Your task to perform on an android device: Clear all items from cart on ebay.com. Search for "bose soundlink mini" on ebay.com, select the first entry, and add it to the cart. Image 0: 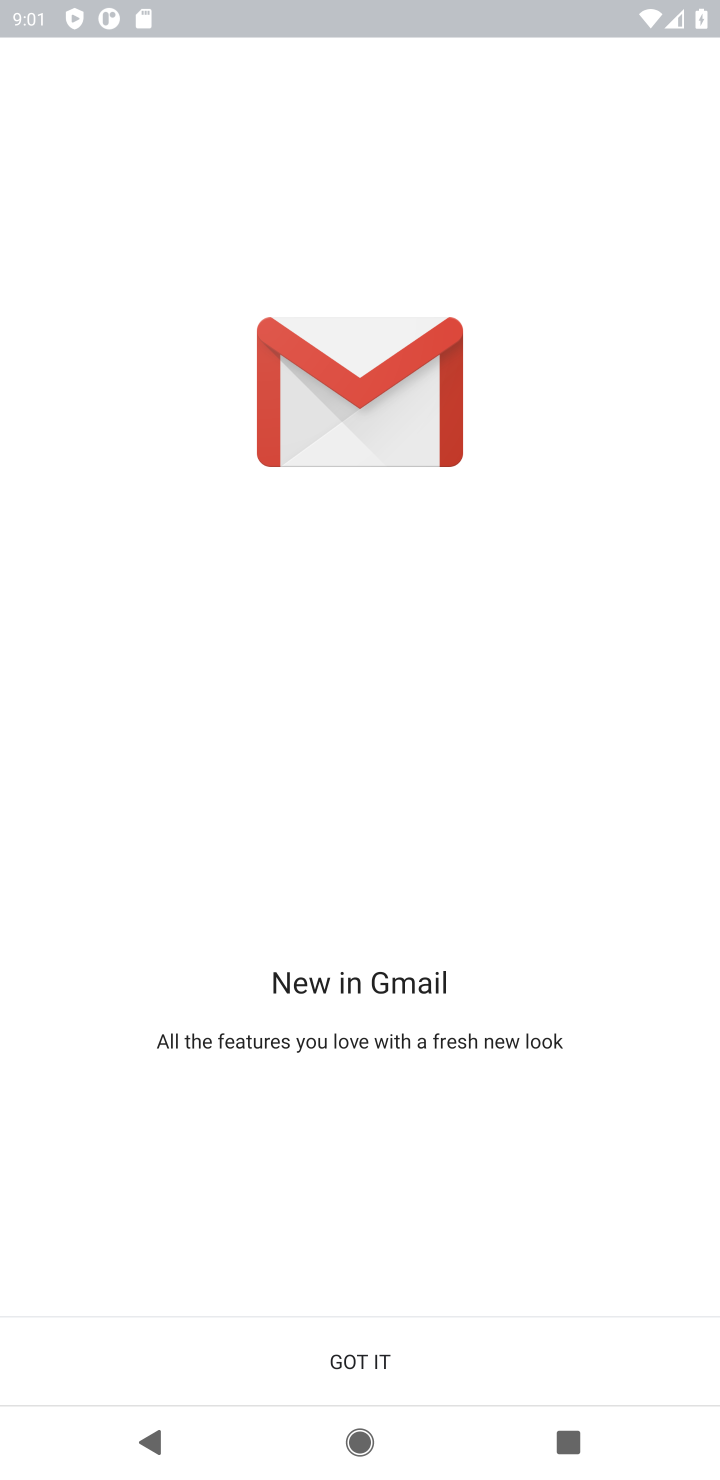
Step 0: press home button
Your task to perform on an android device: Clear all items from cart on ebay.com. Search for "bose soundlink mini" on ebay.com, select the first entry, and add it to the cart. Image 1: 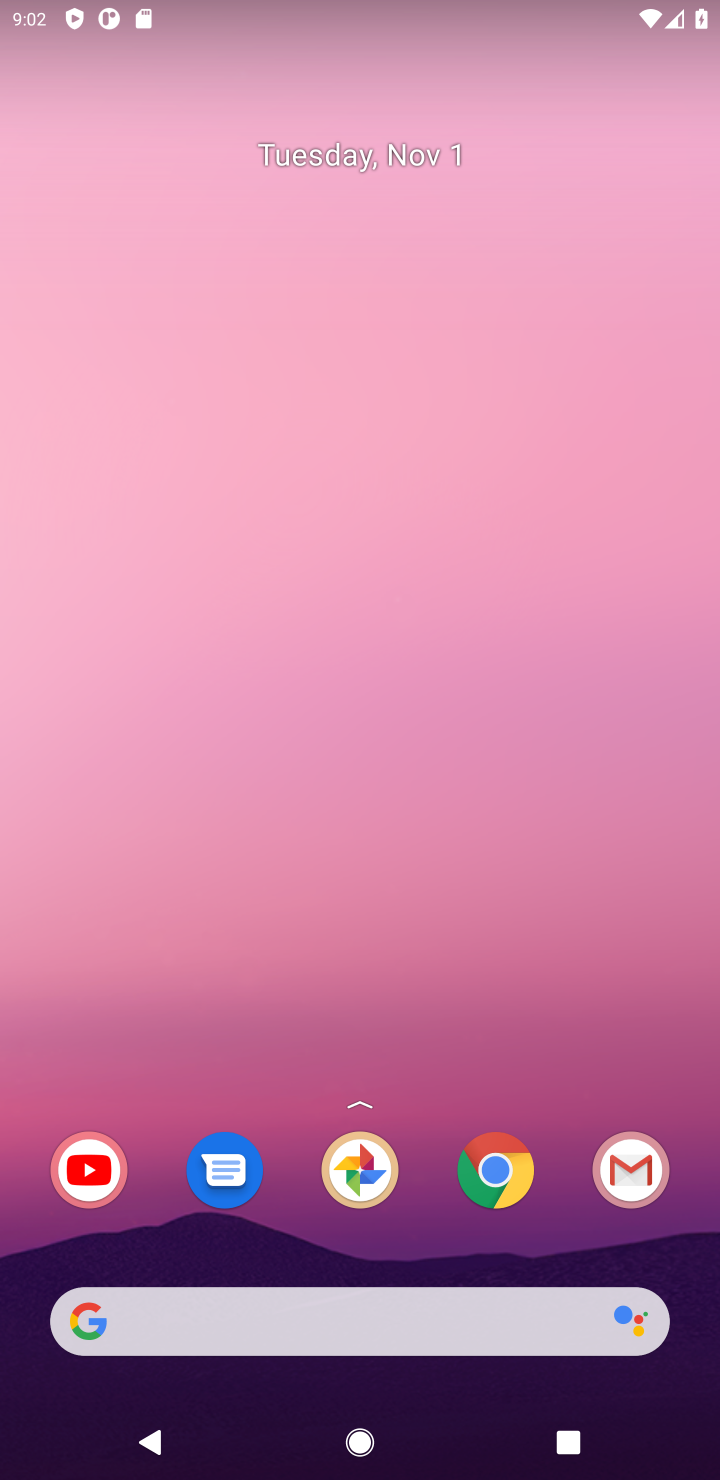
Step 1: click (499, 1188)
Your task to perform on an android device: Clear all items from cart on ebay.com. Search for "bose soundlink mini" on ebay.com, select the first entry, and add it to the cart. Image 2: 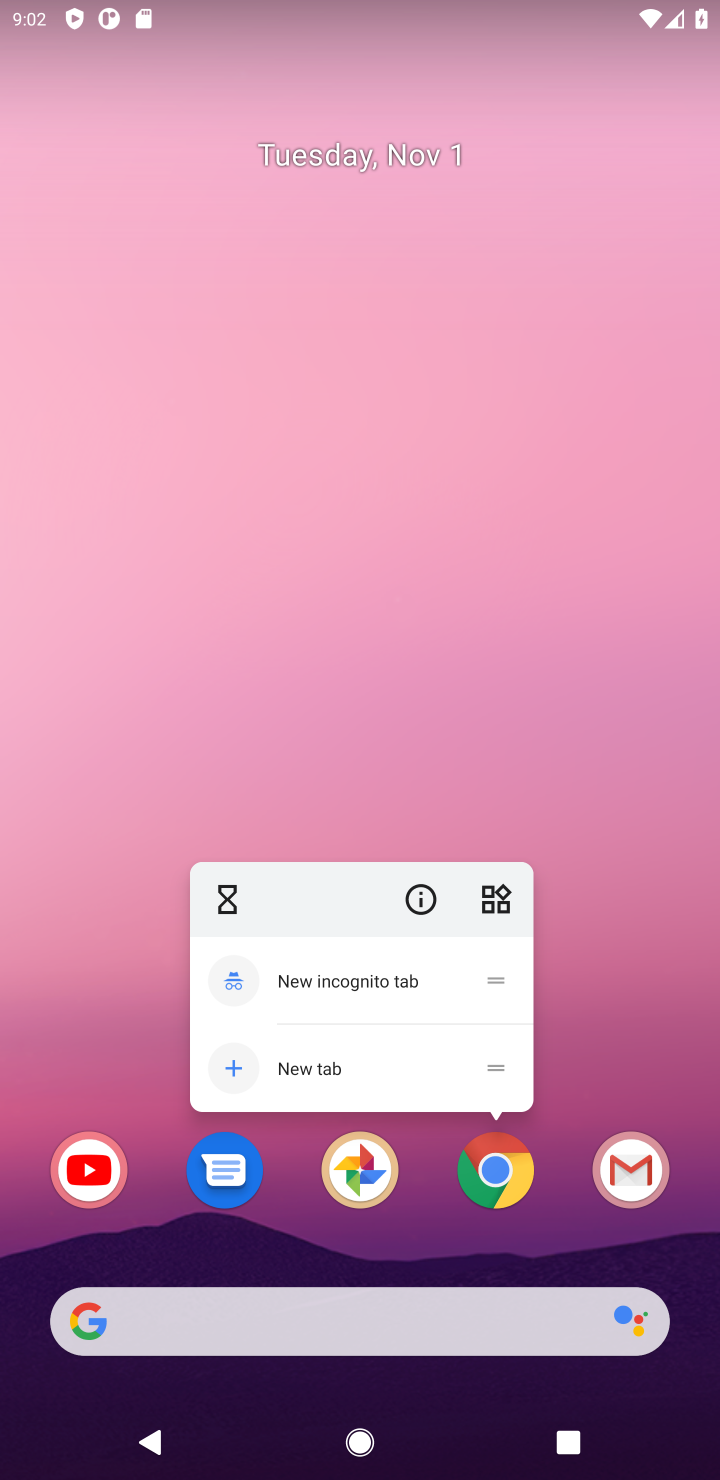
Step 2: click (487, 1174)
Your task to perform on an android device: Clear all items from cart on ebay.com. Search for "bose soundlink mini" on ebay.com, select the first entry, and add it to the cart. Image 3: 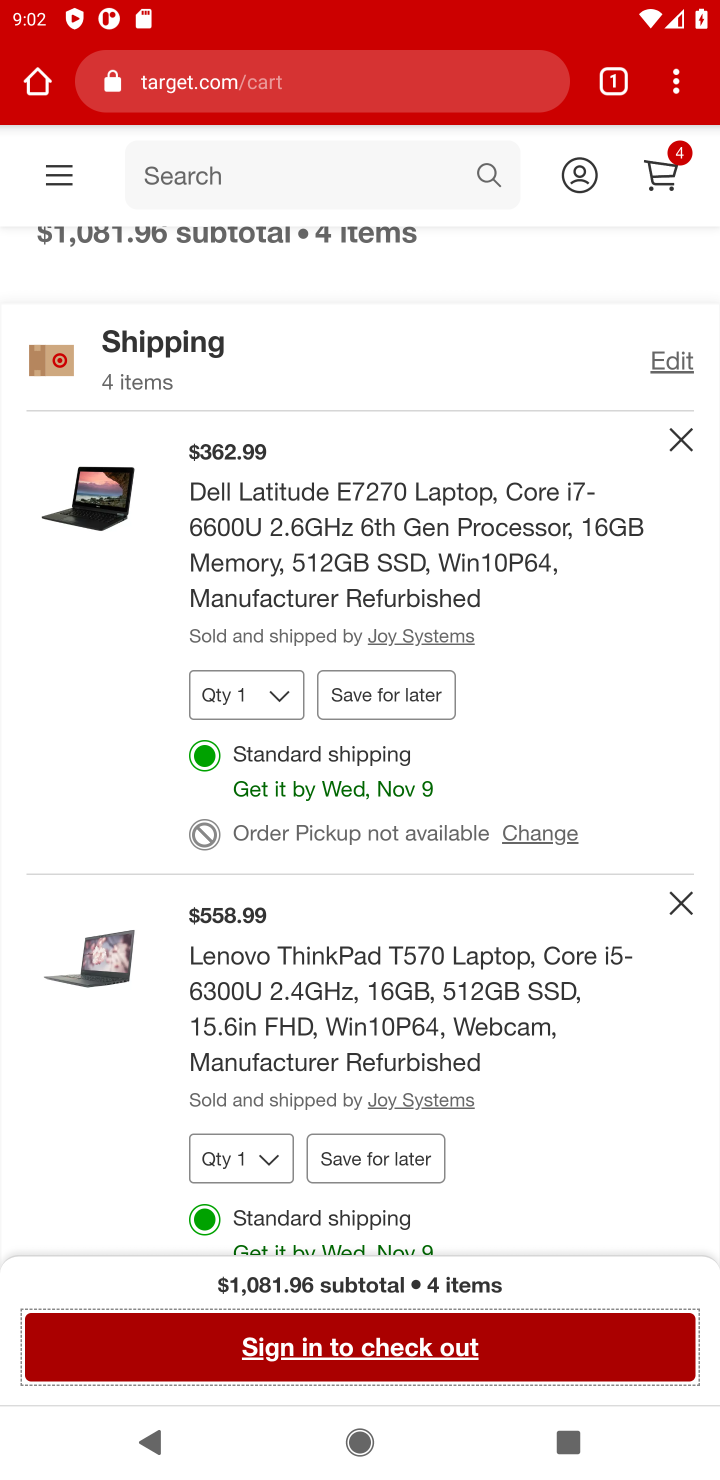
Step 3: click (286, 82)
Your task to perform on an android device: Clear all items from cart on ebay.com. Search for "bose soundlink mini" on ebay.com, select the first entry, and add it to the cart. Image 4: 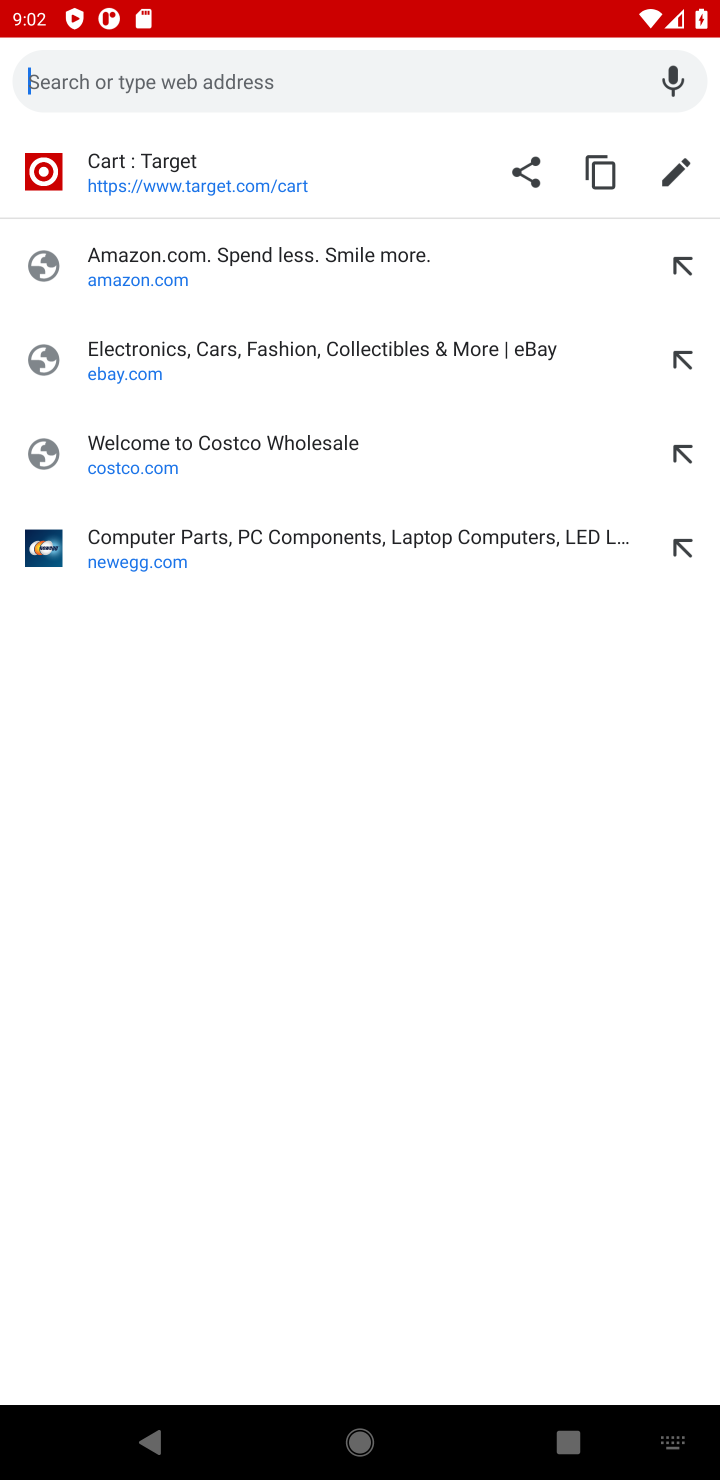
Step 4: type "ebay.com"
Your task to perform on an android device: Clear all items from cart on ebay.com. Search for "bose soundlink mini" on ebay.com, select the first entry, and add it to the cart. Image 5: 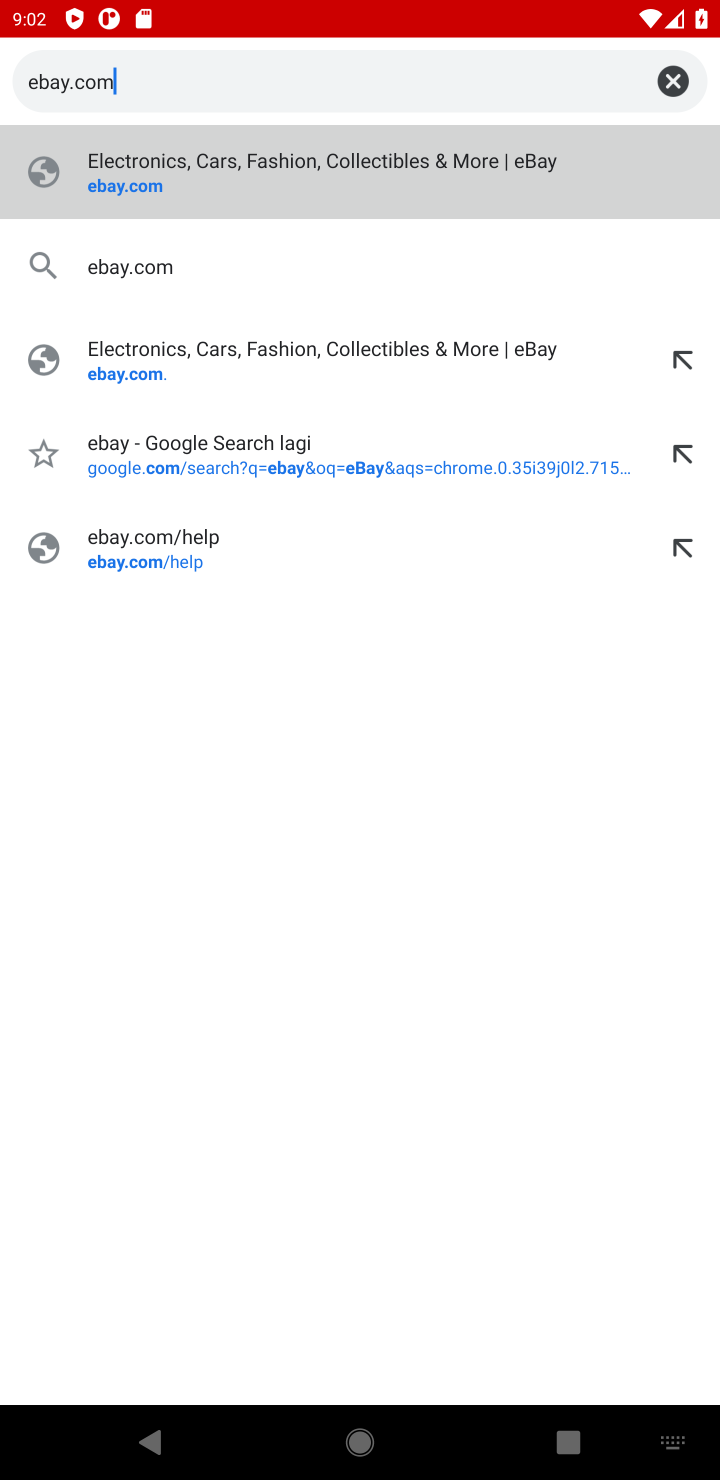
Step 5: press enter
Your task to perform on an android device: Clear all items from cart on ebay.com. Search for "bose soundlink mini" on ebay.com, select the first entry, and add it to the cart. Image 6: 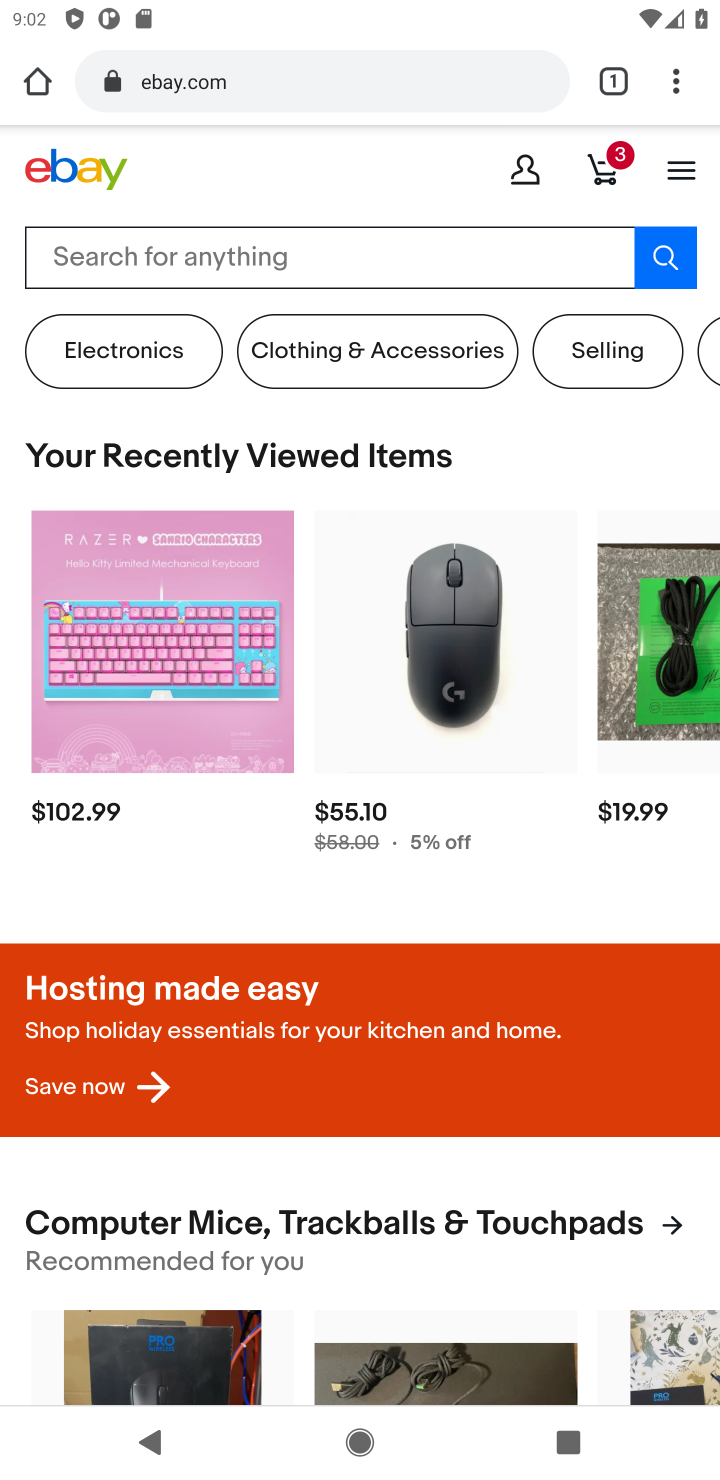
Step 6: click (615, 167)
Your task to perform on an android device: Clear all items from cart on ebay.com. Search for "bose soundlink mini" on ebay.com, select the first entry, and add it to the cart. Image 7: 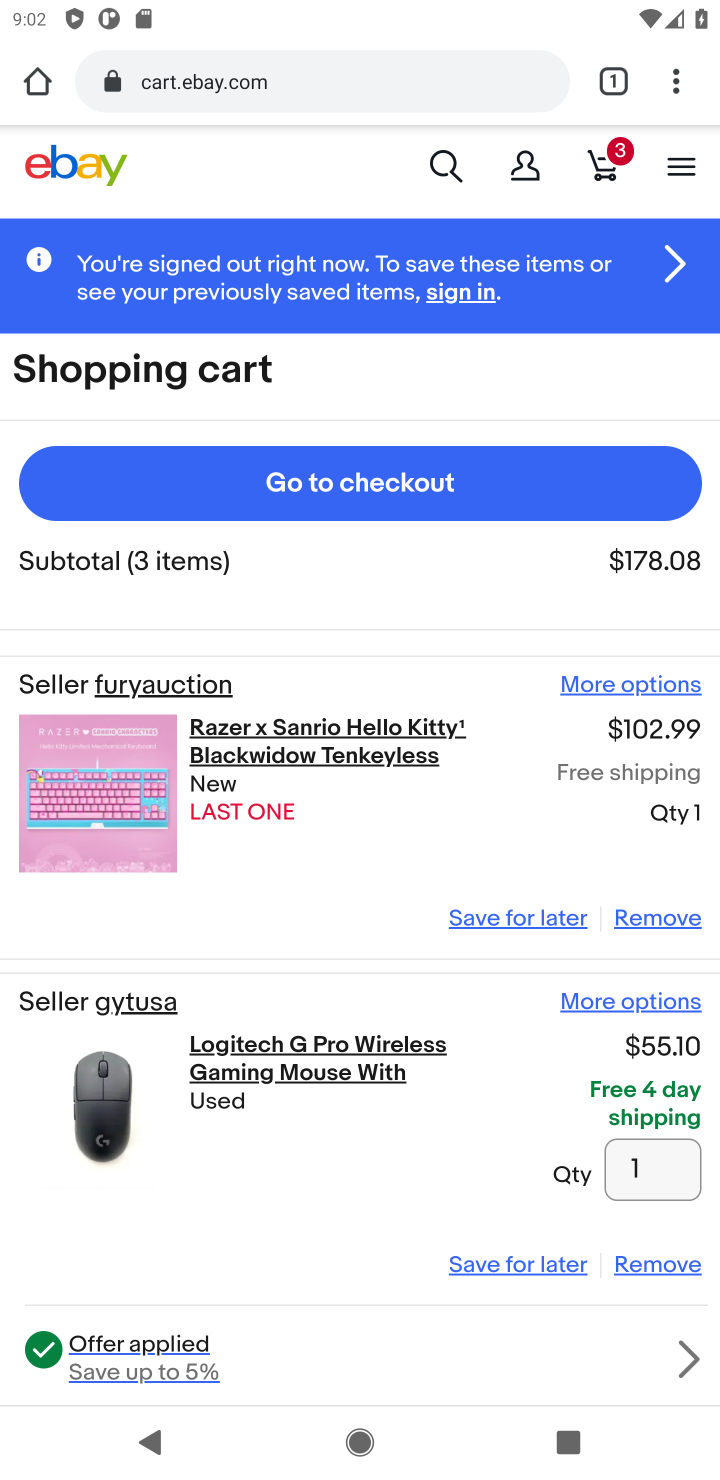
Step 7: click (658, 927)
Your task to perform on an android device: Clear all items from cart on ebay.com. Search for "bose soundlink mini" on ebay.com, select the first entry, and add it to the cart. Image 8: 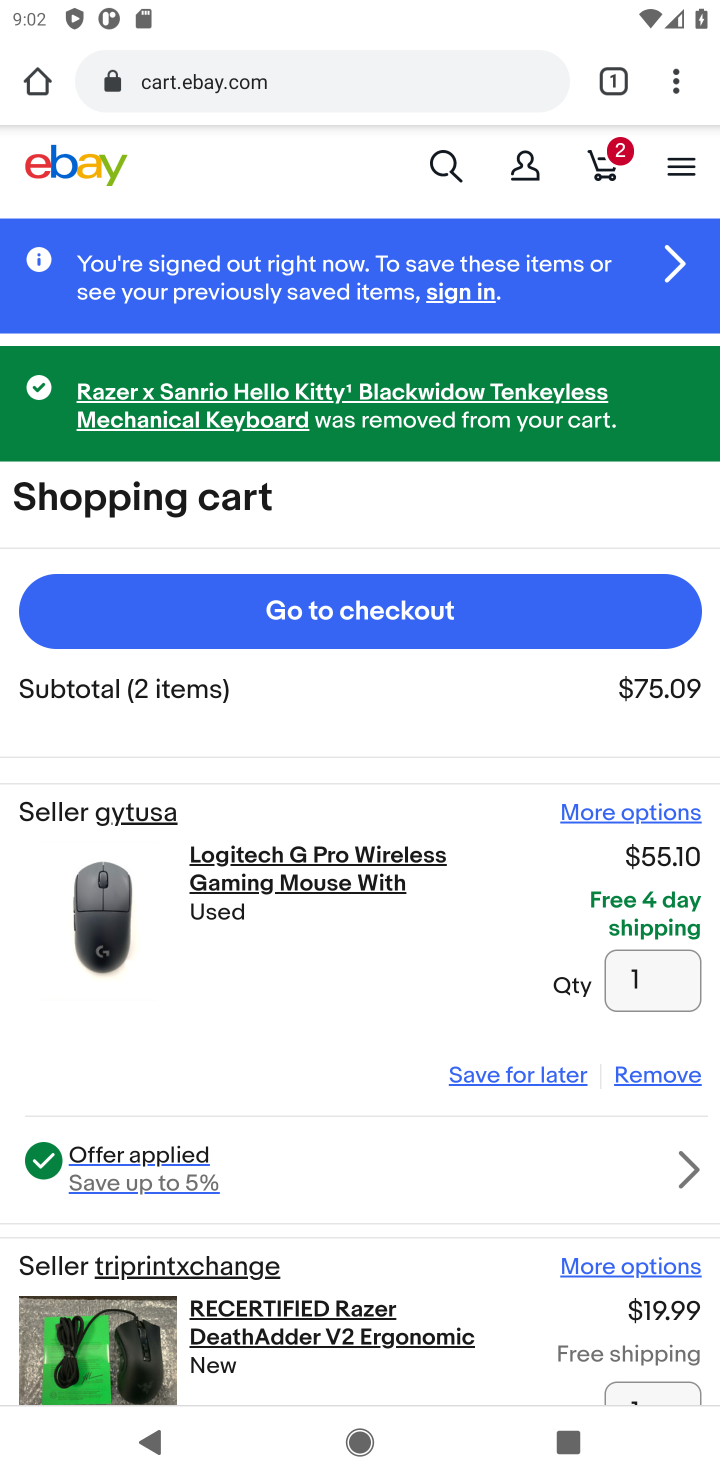
Step 8: click (658, 1066)
Your task to perform on an android device: Clear all items from cart on ebay.com. Search for "bose soundlink mini" on ebay.com, select the first entry, and add it to the cart. Image 9: 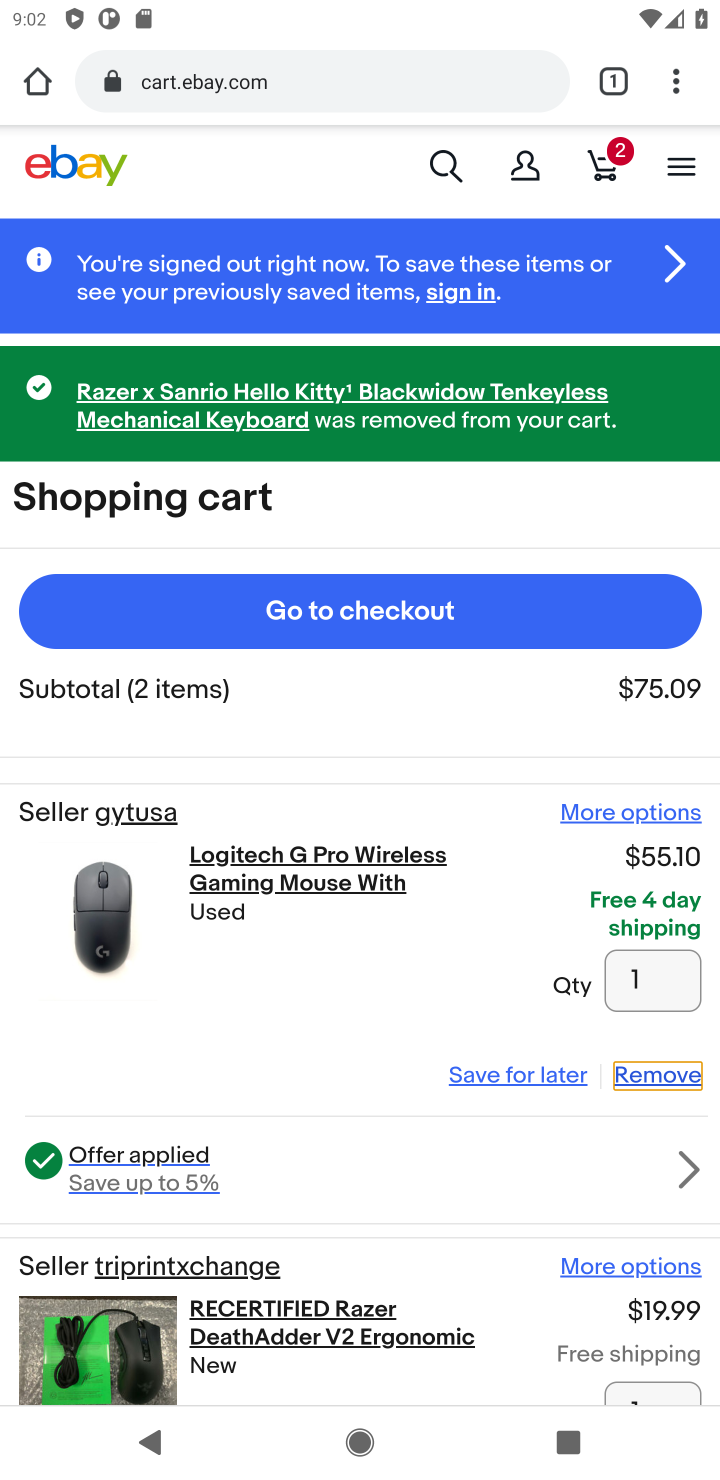
Step 9: click (654, 1078)
Your task to perform on an android device: Clear all items from cart on ebay.com. Search for "bose soundlink mini" on ebay.com, select the first entry, and add it to the cart. Image 10: 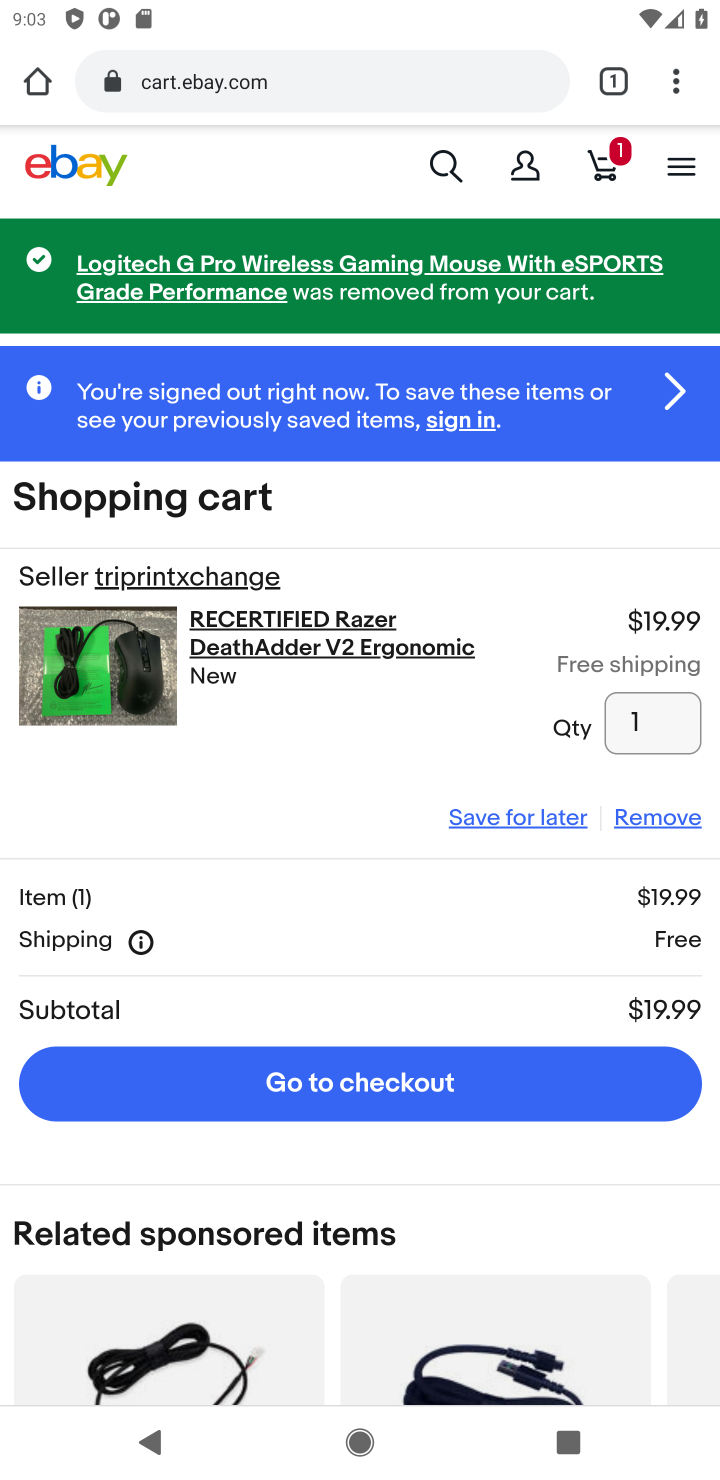
Step 10: click (652, 817)
Your task to perform on an android device: Clear all items from cart on ebay.com. Search for "bose soundlink mini" on ebay.com, select the first entry, and add it to the cart. Image 11: 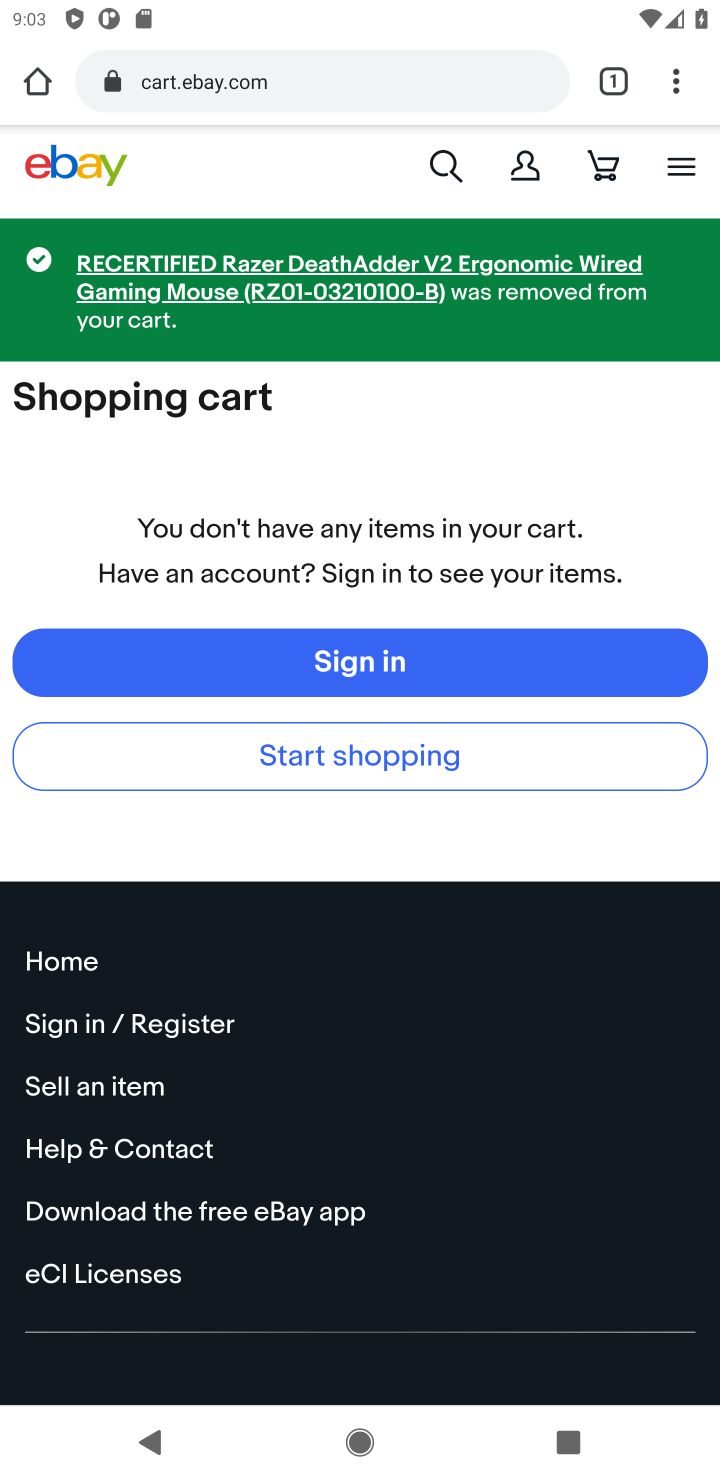
Step 11: click (465, 165)
Your task to perform on an android device: Clear all items from cart on ebay.com. Search for "bose soundlink mini" on ebay.com, select the first entry, and add it to the cart. Image 12: 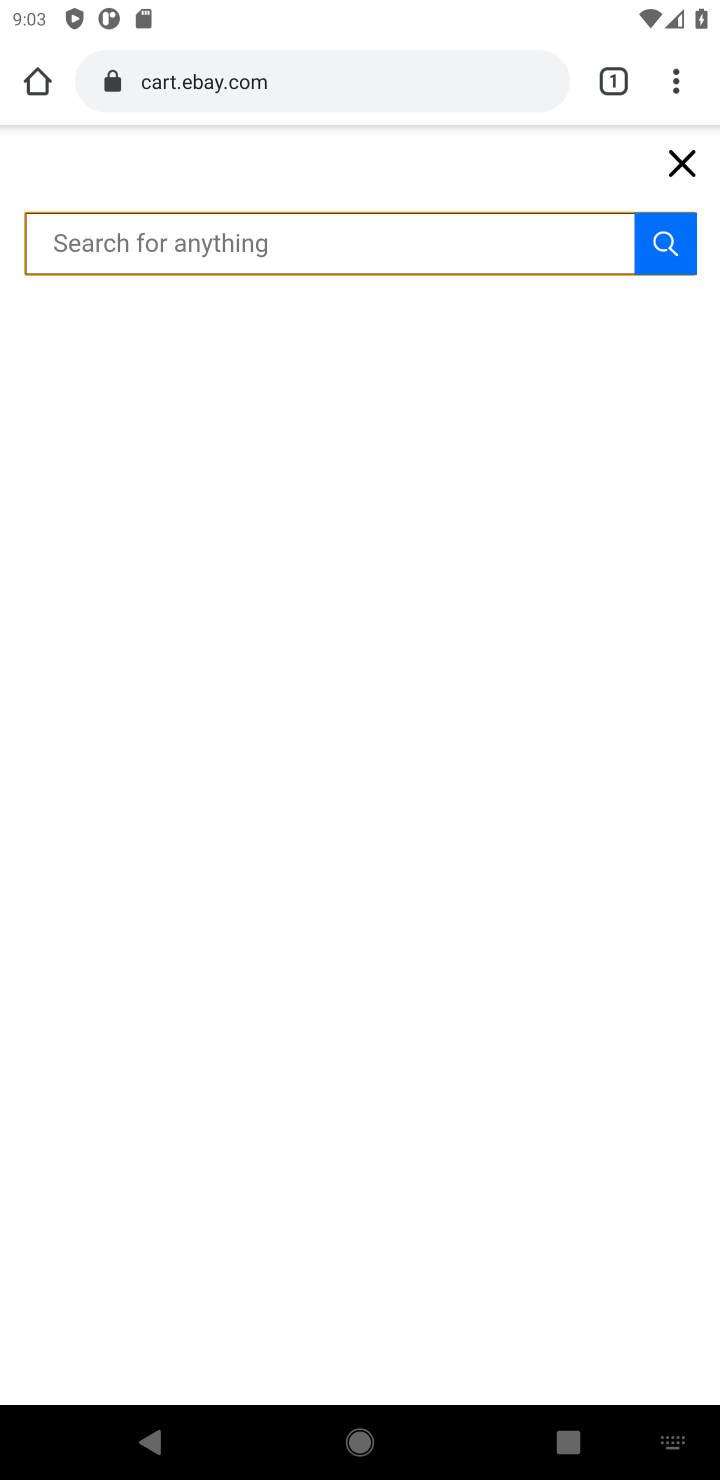
Step 12: type "bose soundlink mini"
Your task to perform on an android device: Clear all items from cart on ebay.com. Search for "bose soundlink mini" on ebay.com, select the first entry, and add it to the cart. Image 13: 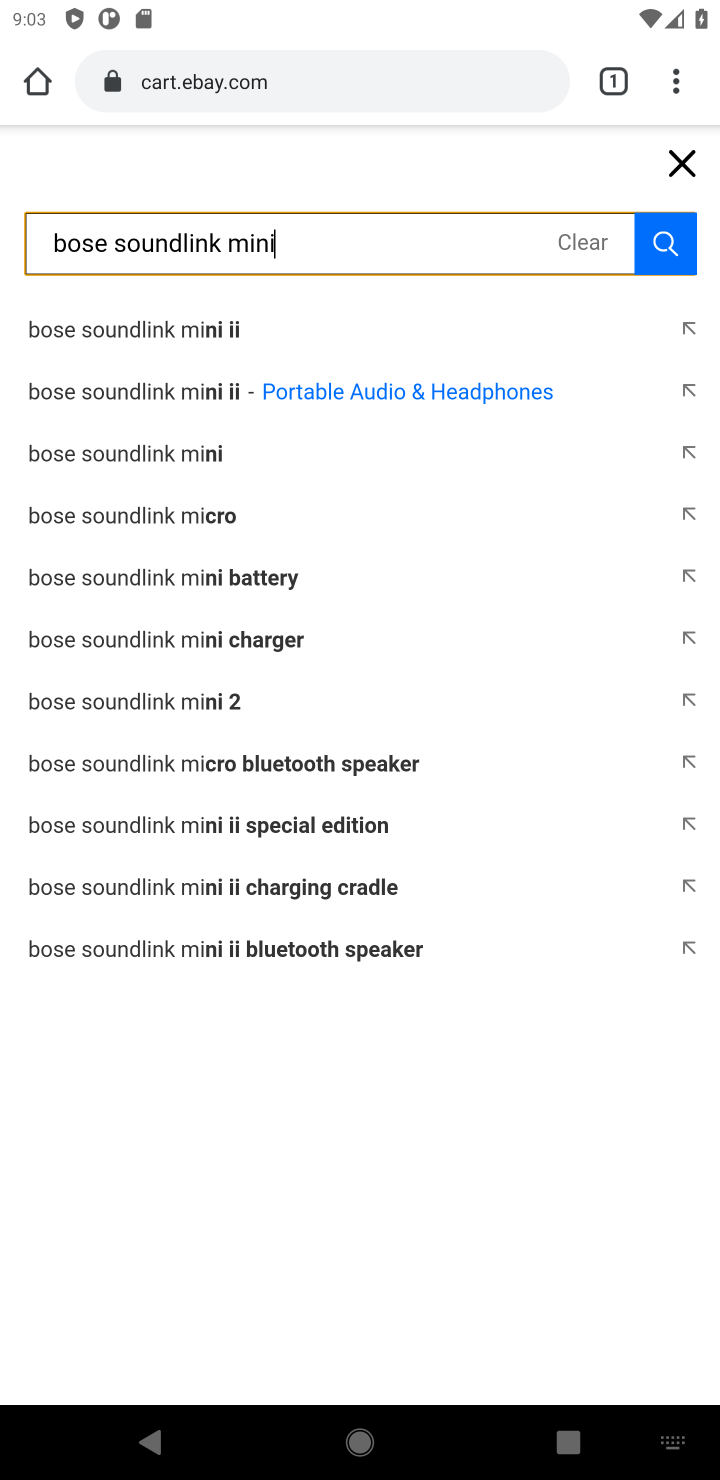
Step 13: click (670, 250)
Your task to perform on an android device: Clear all items from cart on ebay.com. Search for "bose soundlink mini" on ebay.com, select the first entry, and add it to the cart. Image 14: 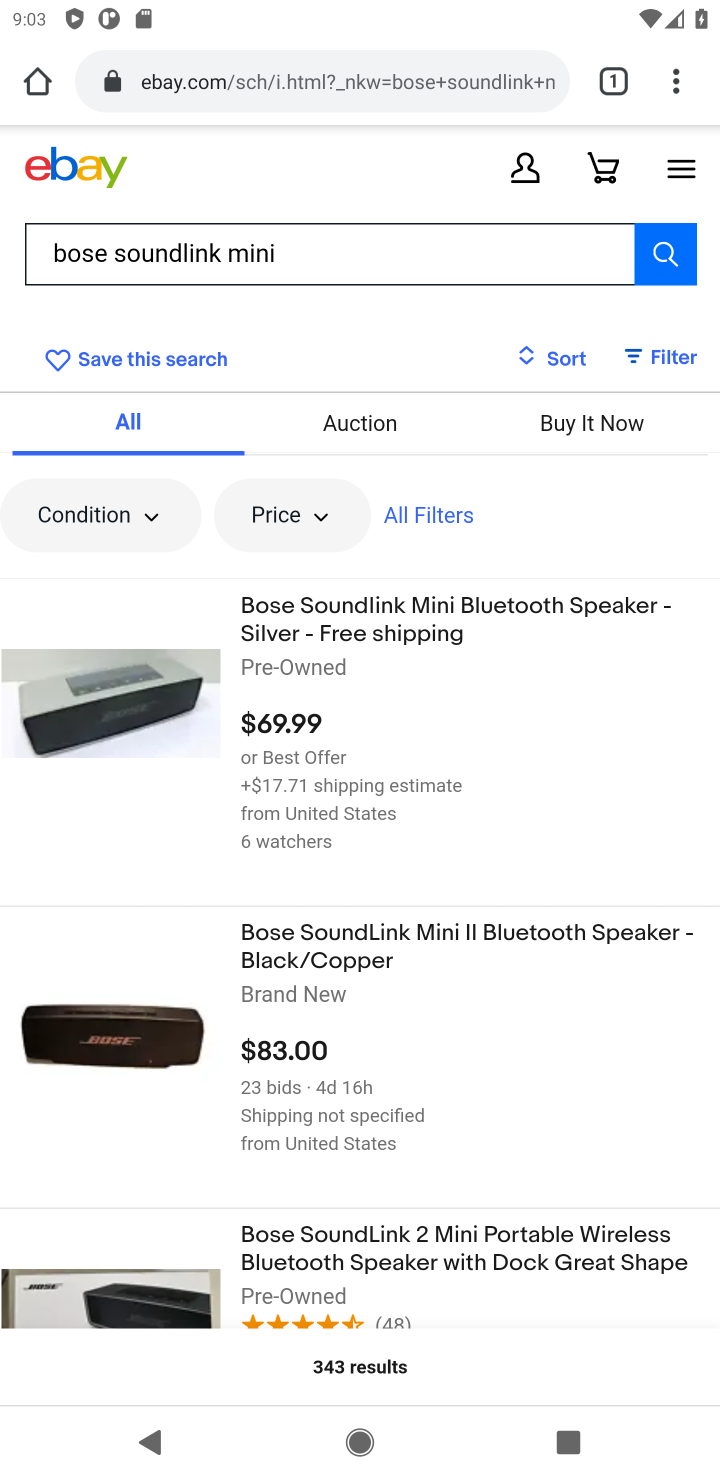
Step 14: click (449, 643)
Your task to perform on an android device: Clear all items from cart on ebay.com. Search for "bose soundlink mini" on ebay.com, select the first entry, and add it to the cart. Image 15: 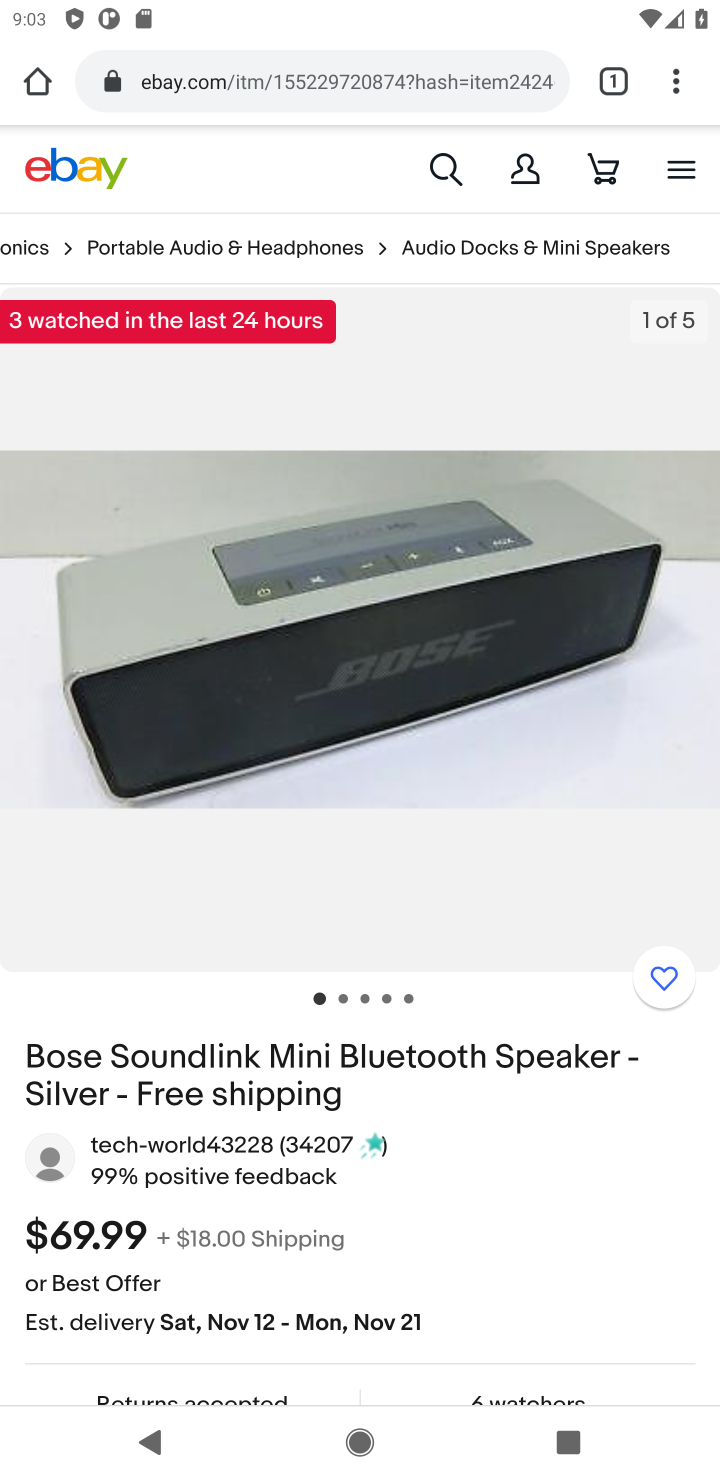
Step 15: drag from (471, 1197) to (453, 646)
Your task to perform on an android device: Clear all items from cart on ebay.com. Search for "bose soundlink mini" on ebay.com, select the first entry, and add it to the cart. Image 16: 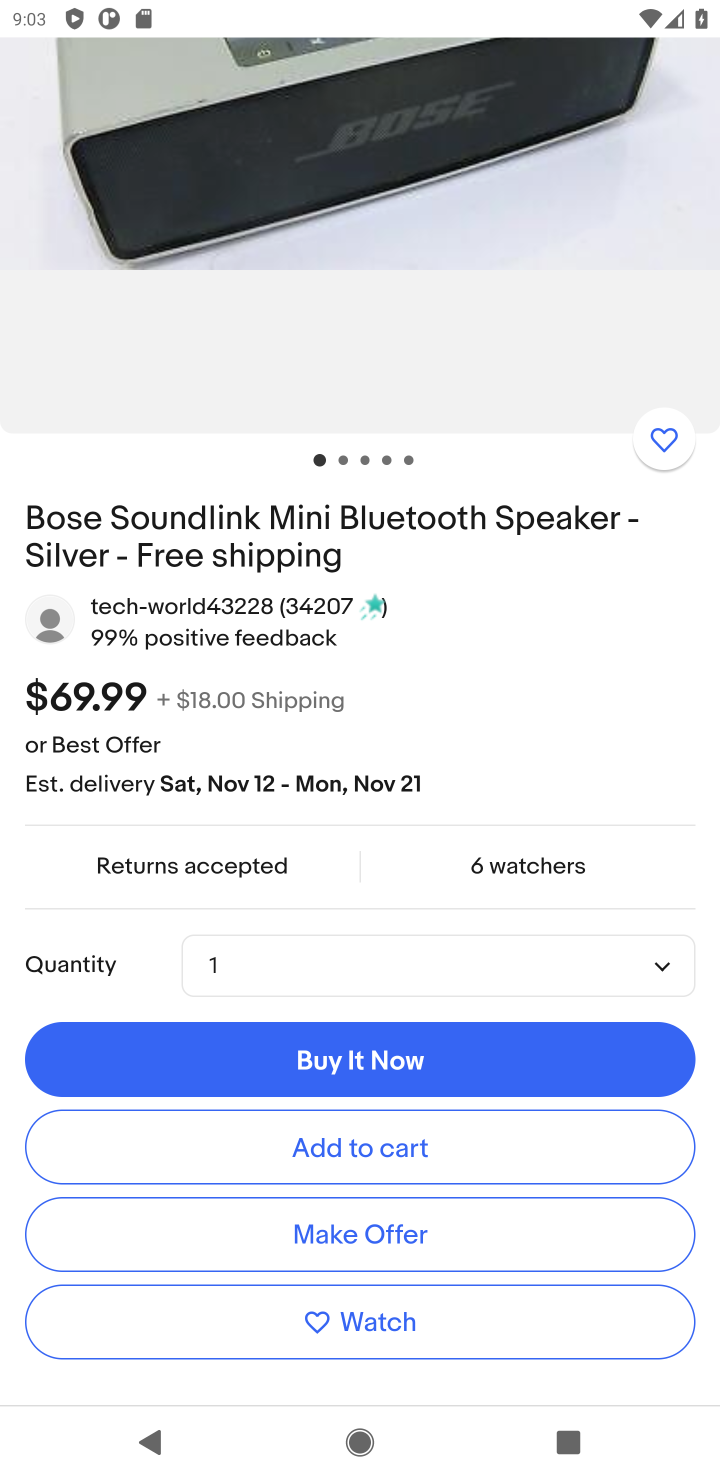
Step 16: click (421, 1149)
Your task to perform on an android device: Clear all items from cart on ebay.com. Search for "bose soundlink mini" on ebay.com, select the first entry, and add it to the cart. Image 17: 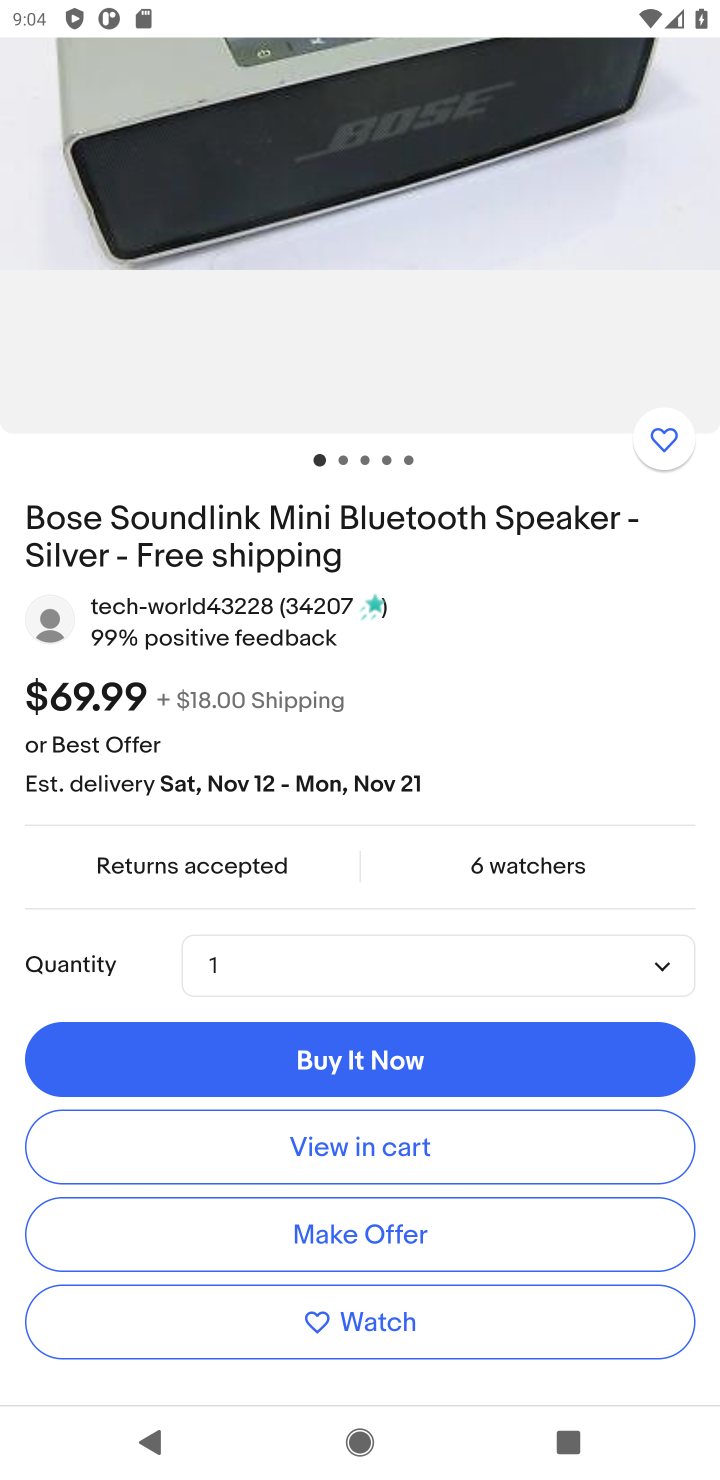
Step 17: click (421, 1149)
Your task to perform on an android device: Clear all items from cart on ebay.com. Search for "bose soundlink mini" on ebay.com, select the first entry, and add it to the cart. Image 18: 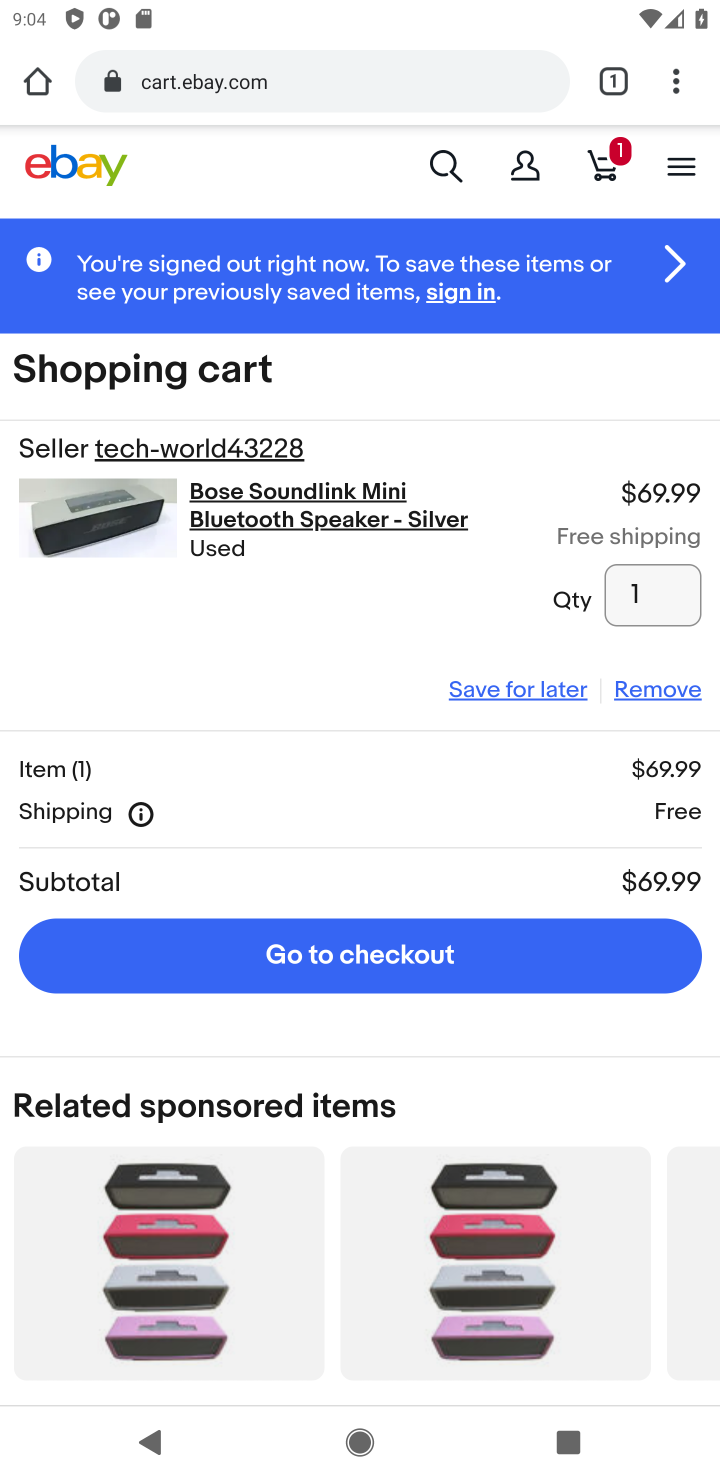
Step 18: task complete